Your task to perform on an android device: What is the recent news? Image 0: 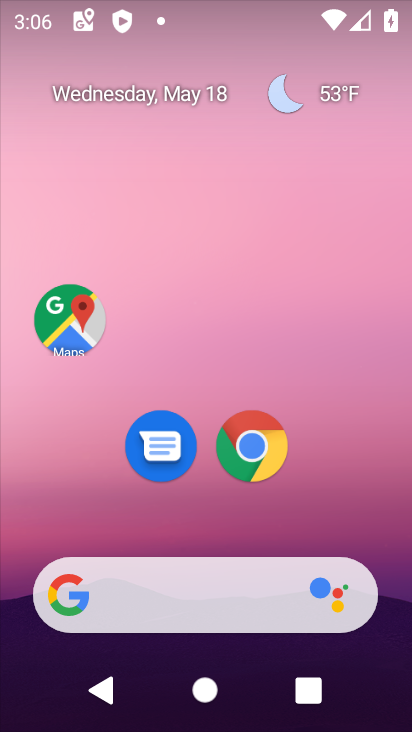
Step 0: drag from (20, 246) to (407, 241)
Your task to perform on an android device: What is the recent news? Image 1: 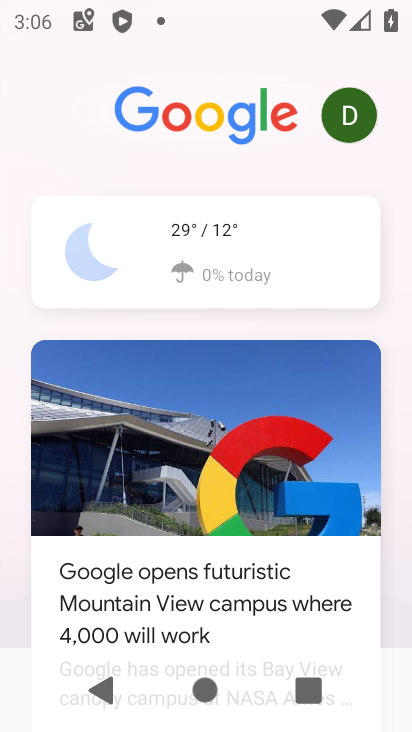
Step 1: task complete